Your task to perform on an android device: toggle airplane mode Image 0: 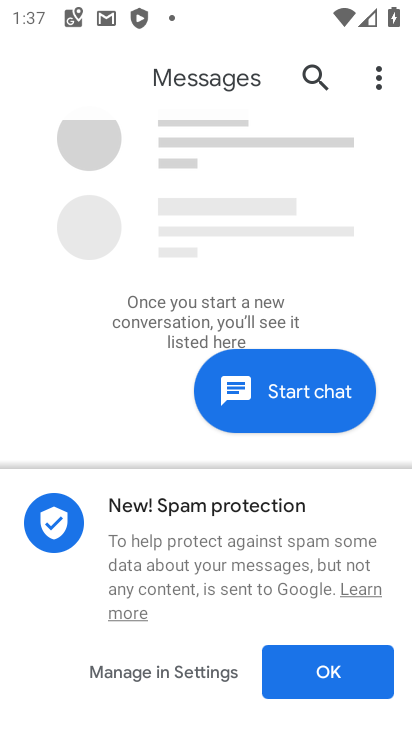
Step 0: press home button
Your task to perform on an android device: toggle airplane mode Image 1: 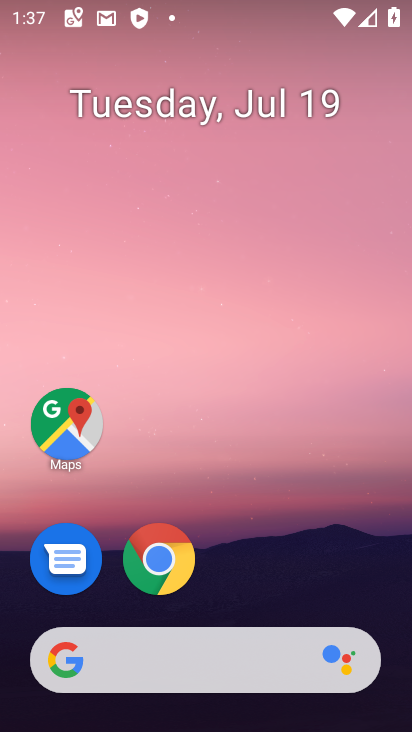
Step 1: drag from (183, 577) to (208, 224)
Your task to perform on an android device: toggle airplane mode Image 2: 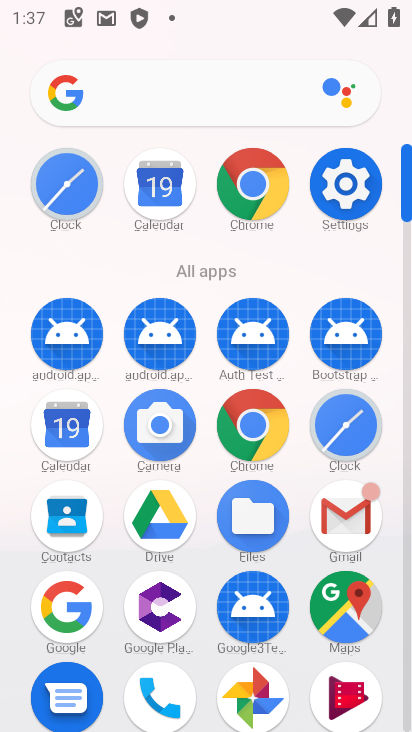
Step 2: click (321, 185)
Your task to perform on an android device: toggle airplane mode Image 3: 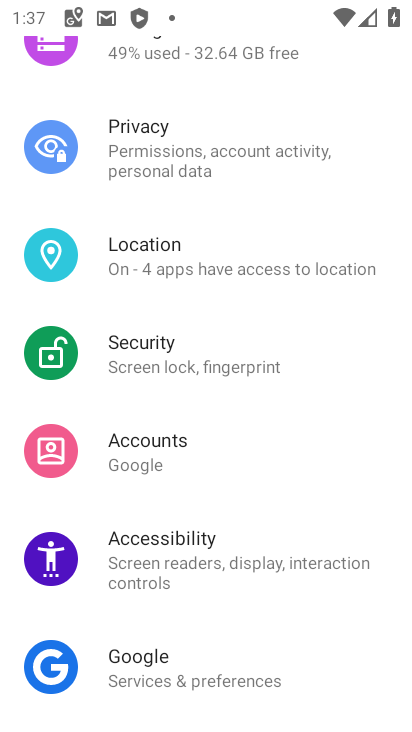
Step 3: drag from (163, 73) to (166, 605)
Your task to perform on an android device: toggle airplane mode Image 4: 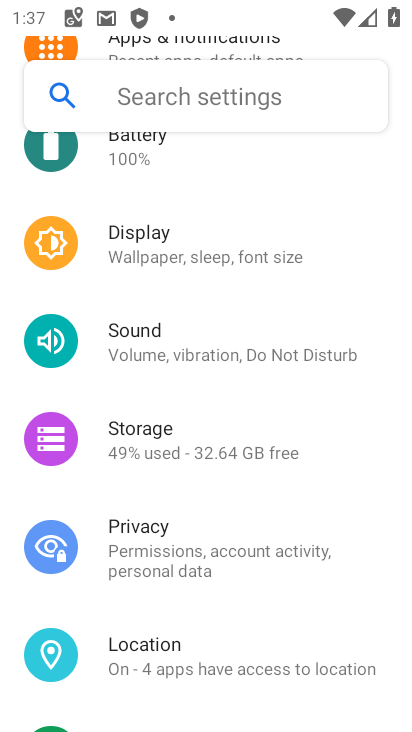
Step 4: drag from (209, 224) to (174, 607)
Your task to perform on an android device: toggle airplane mode Image 5: 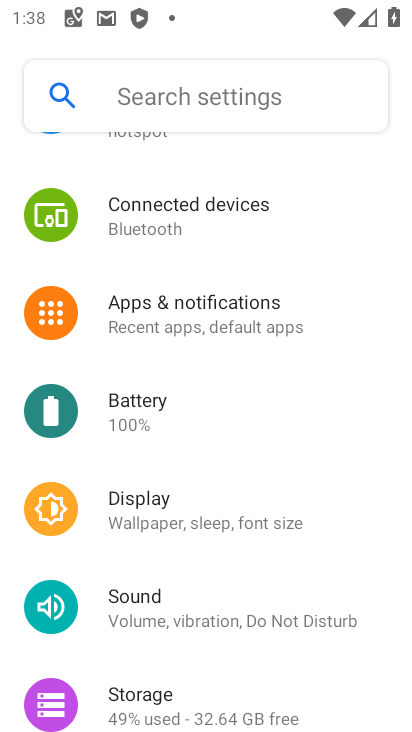
Step 5: drag from (163, 153) to (165, 631)
Your task to perform on an android device: toggle airplane mode Image 6: 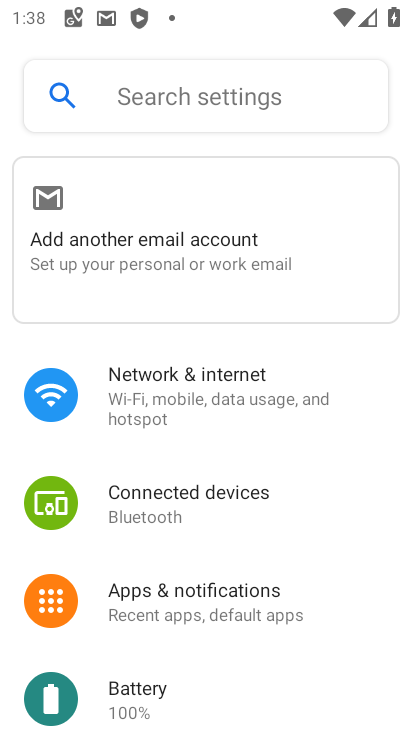
Step 6: click (145, 401)
Your task to perform on an android device: toggle airplane mode Image 7: 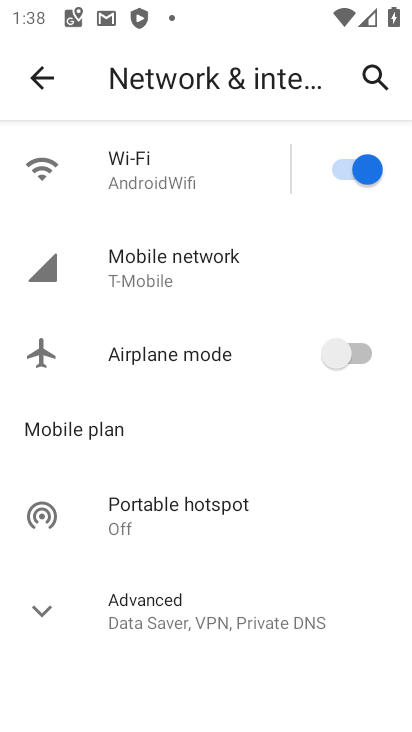
Step 7: click (350, 344)
Your task to perform on an android device: toggle airplane mode Image 8: 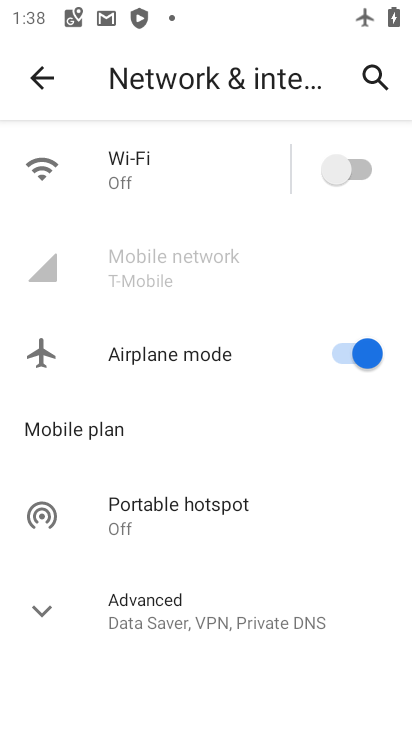
Step 8: task complete